Your task to perform on an android device: turn off translation in the chrome app Image 0: 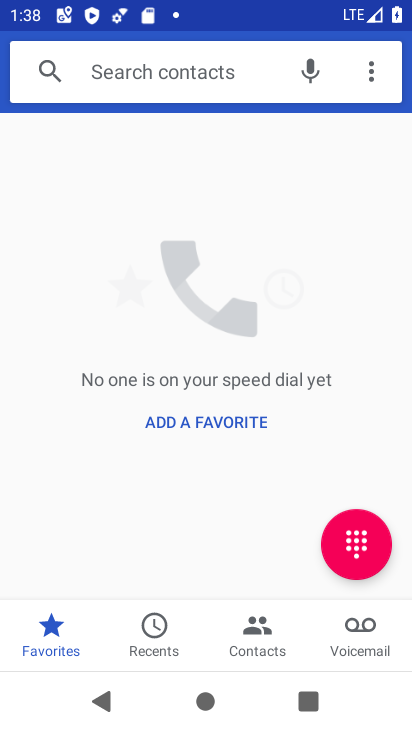
Step 0: press home button
Your task to perform on an android device: turn off translation in the chrome app Image 1: 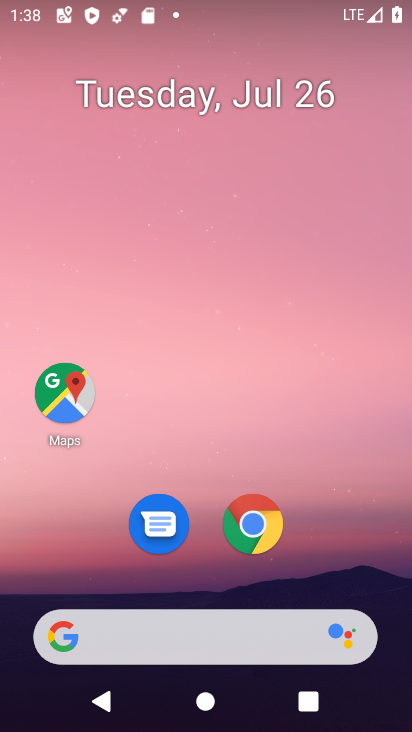
Step 1: click (258, 526)
Your task to perform on an android device: turn off translation in the chrome app Image 2: 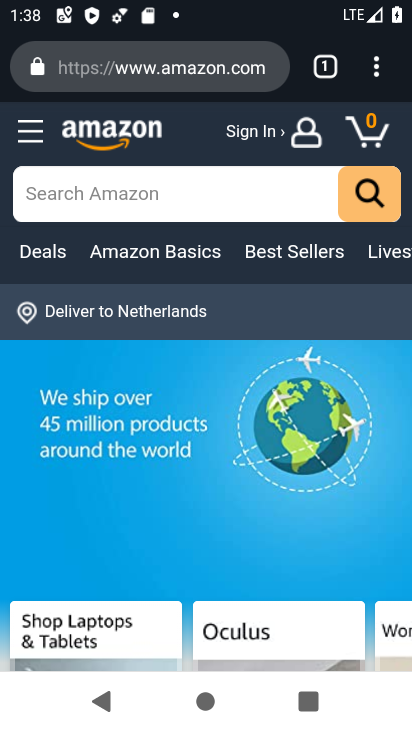
Step 2: click (381, 64)
Your task to perform on an android device: turn off translation in the chrome app Image 3: 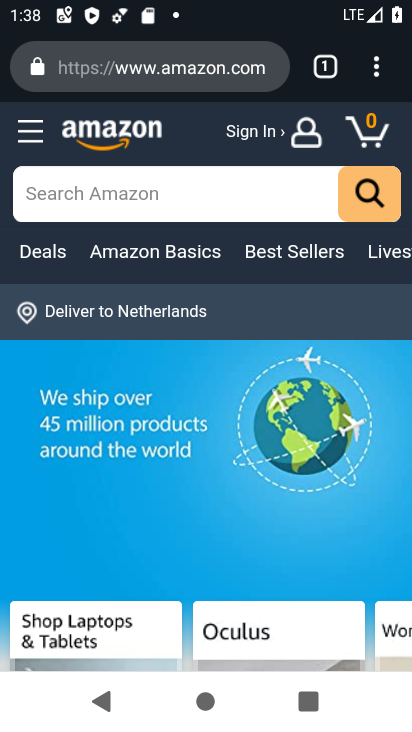
Step 3: click (381, 64)
Your task to perform on an android device: turn off translation in the chrome app Image 4: 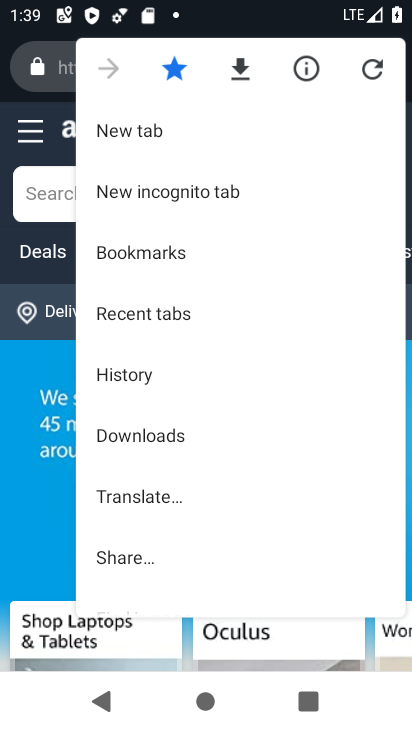
Step 4: drag from (243, 509) to (313, 121)
Your task to perform on an android device: turn off translation in the chrome app Image 5: 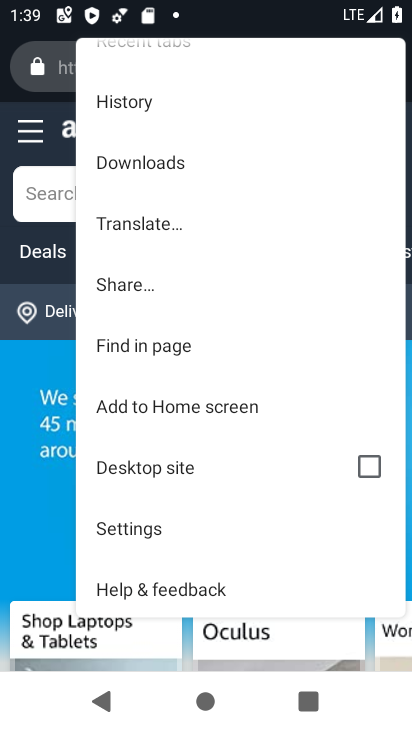
Step 5: click (155, 531)
Your task to perform on an android device: turn off translation in the chrome app Image 6: 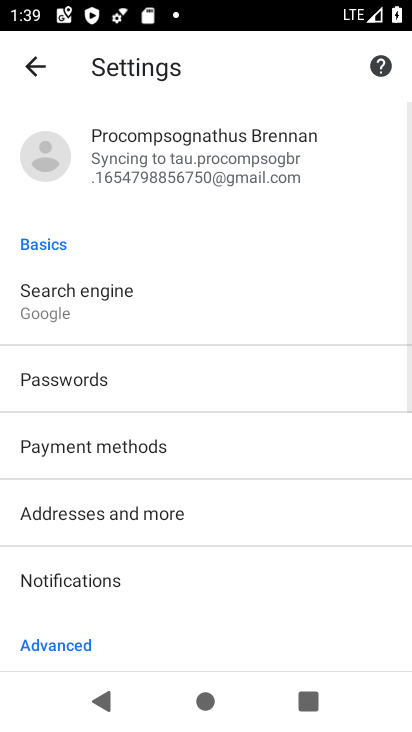
Step 6: drag from (203, 555) to (269, 250)
Your task to perform on an android device: turn off translation in the chrome app Image 7: 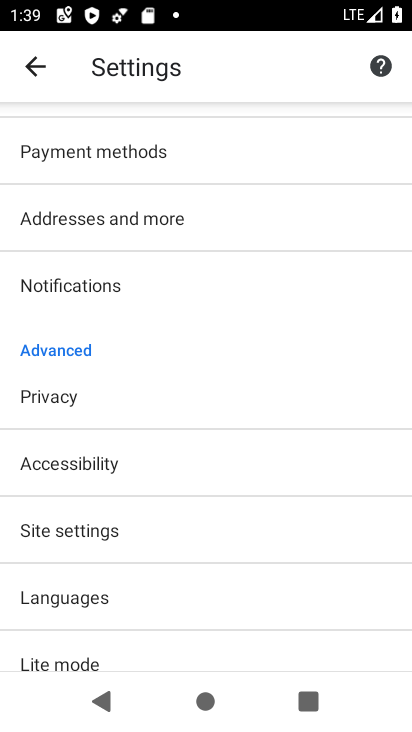
Step 7: click (203, 588)
Your task to perform on an android device: turn off translation in the chrome app Image 8: 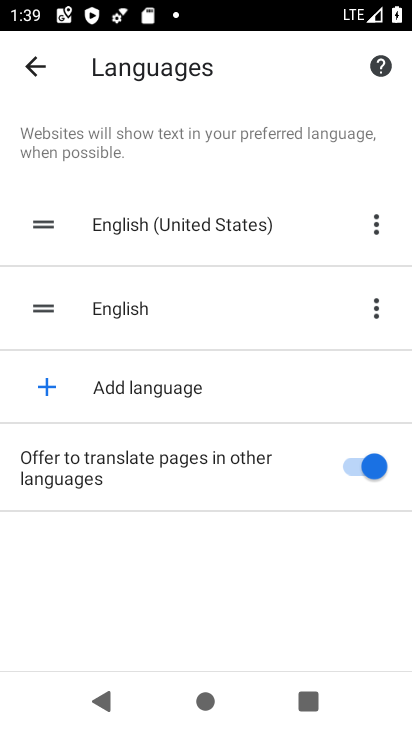
Step 8: click (361, 459)
Your task to perform on an android device: turn off translation in the chrome app Image 9: 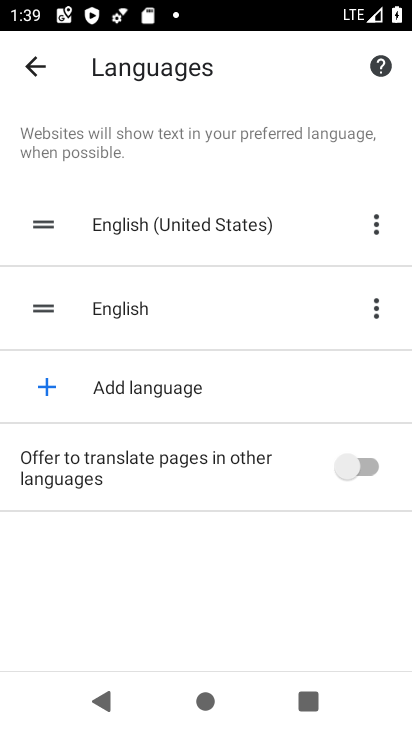
Step 9: task complete